Your task to perform on an android device: Open ESPN.com Image 0: 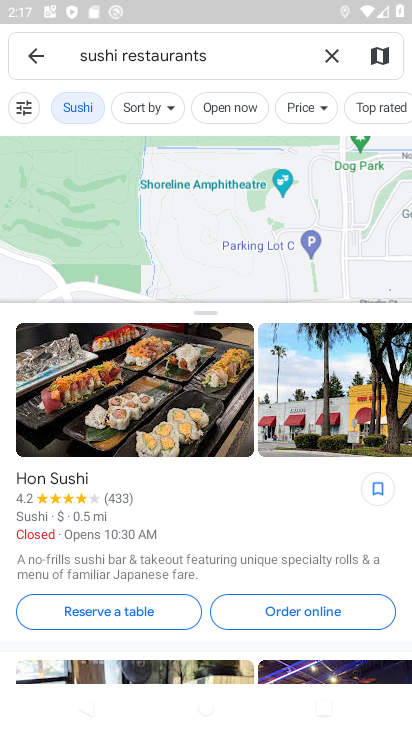
Step 0: press home button
Your task to perform on an android device: Open ESPN.com Image 1: 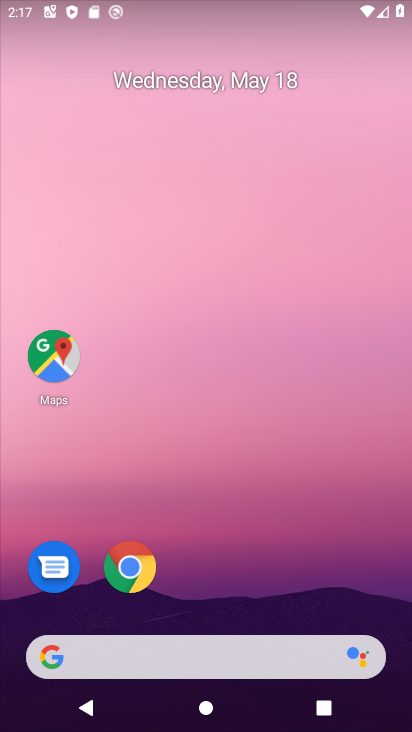
Step 1: click (115, 555)
Your task to perform on an android device: Open ESPN.com Image 2: 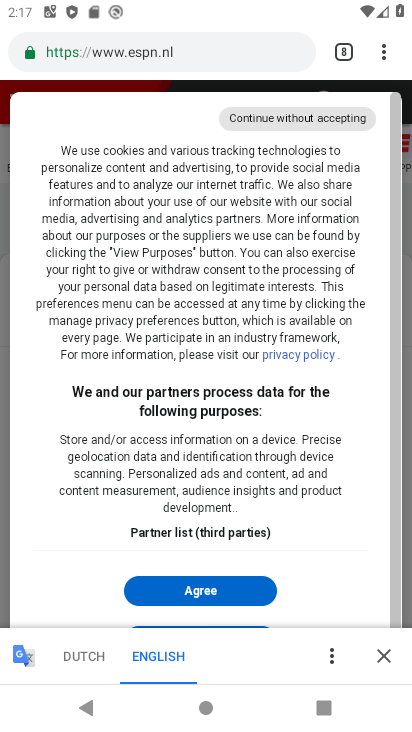
Step 2: click (383, 57)
Your task to perform on an android device: Open ESPN.com Image 3: 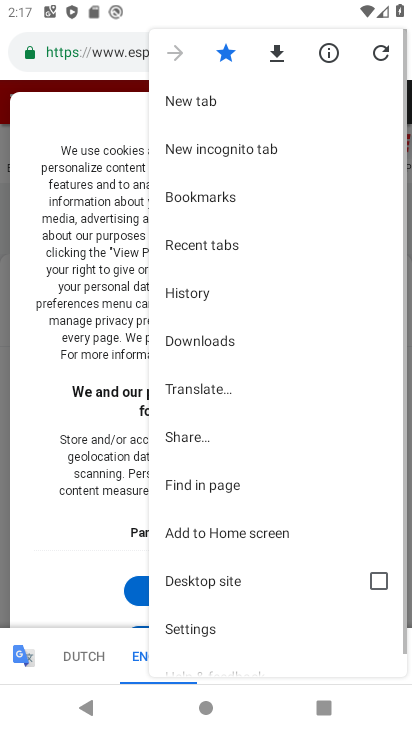
Step 3: click (215, 103)
Your task to perform on an android device: Open ESPN.com Image 4: 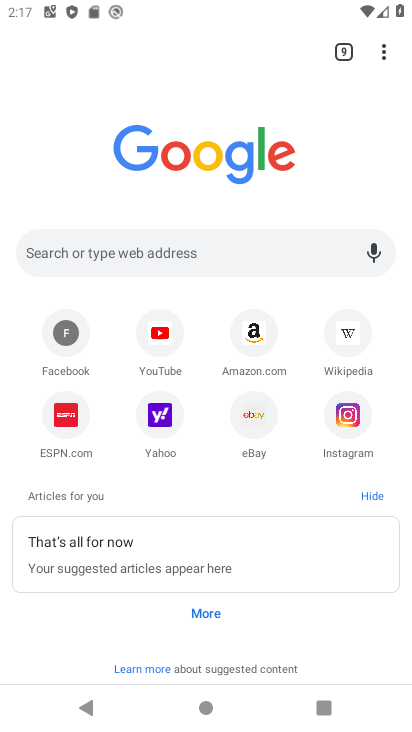
Step 4: click (61, 407)
Your task to perform on an android device: Open ESPN.com Image 5: 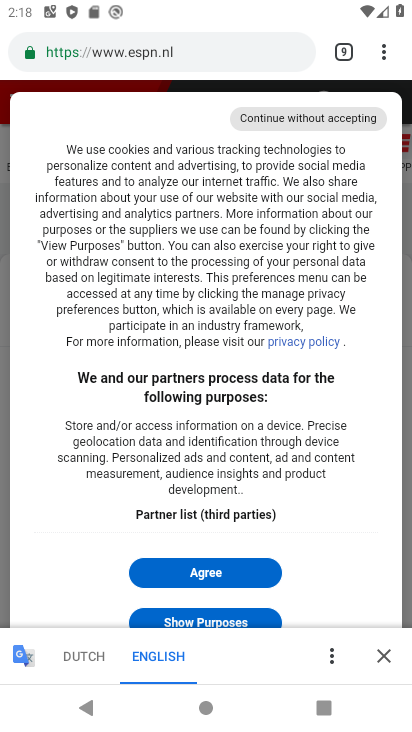
Step 5: task complete